Your task to perform on an android device: Open Reddit.com Image 0: 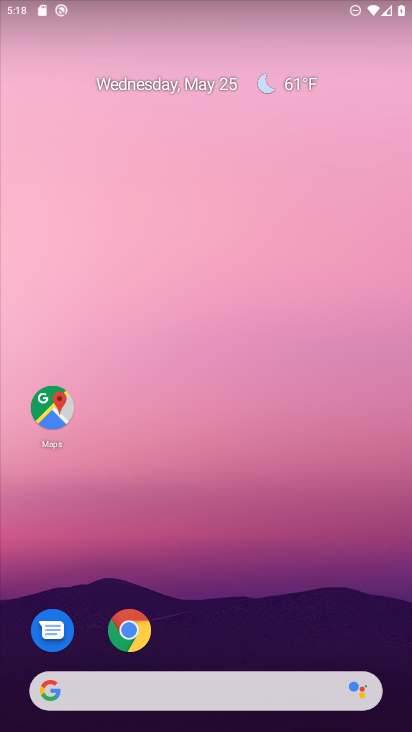
Step 0: click (133, 630)
Your task to perform on an android device: Open Reddit.com Image 1: 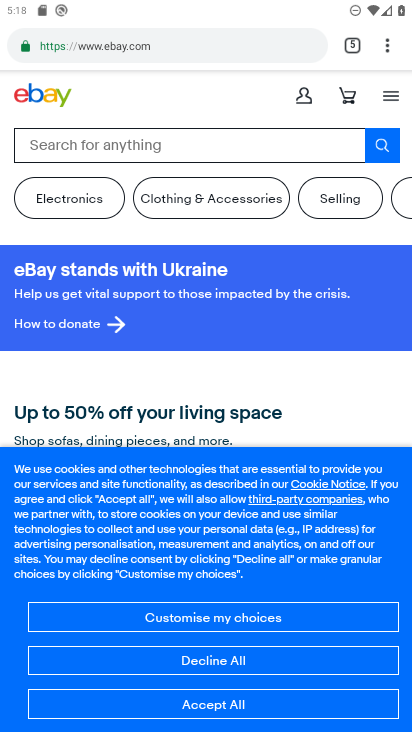
Step 1: click (349, 42)
Your task to perform on an android device: Open Reddit.com Image 2: 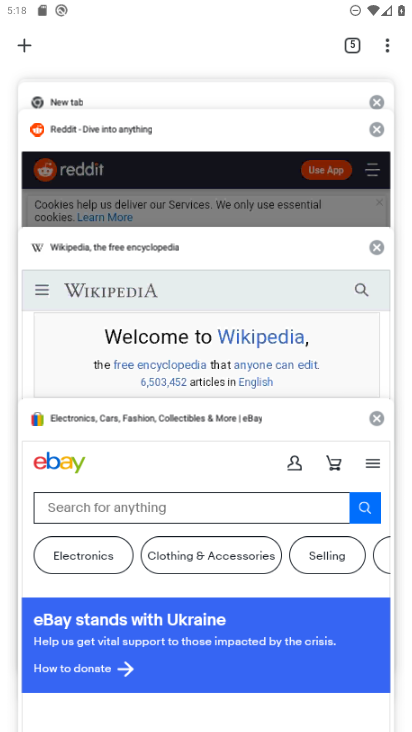
Step 2: click (78, 128)
Your task to perform on an android device: Open Reddit.com Image 3: 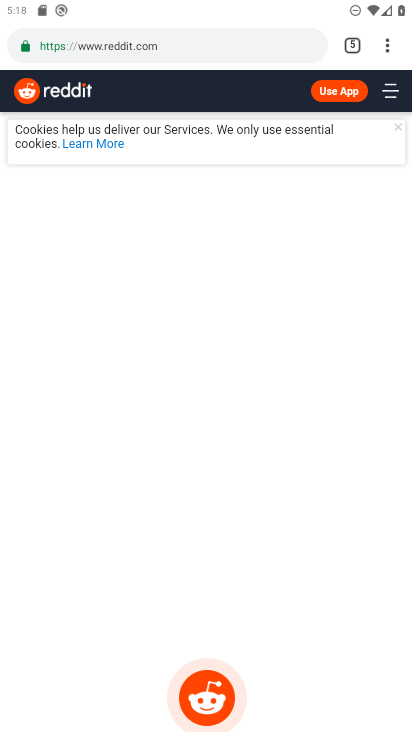
Step 3: task complete